Your task to perform on an android device: Open Youtube and go to the subscriptions tab Image 0: 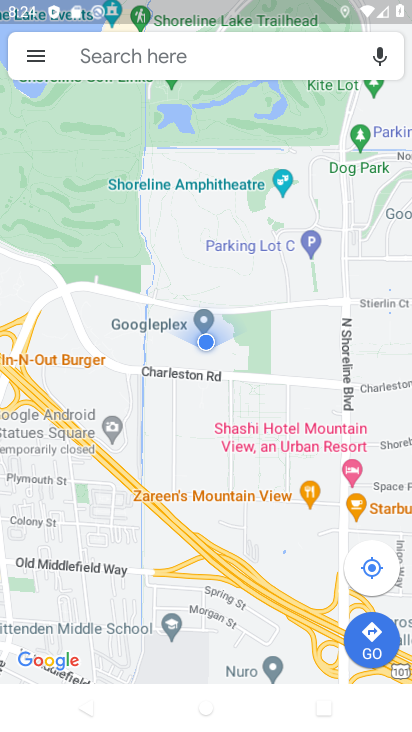
Step 0: press home button
Your task to perform on an android device: Open Youtube and go to the subscriptions tab Image 1: 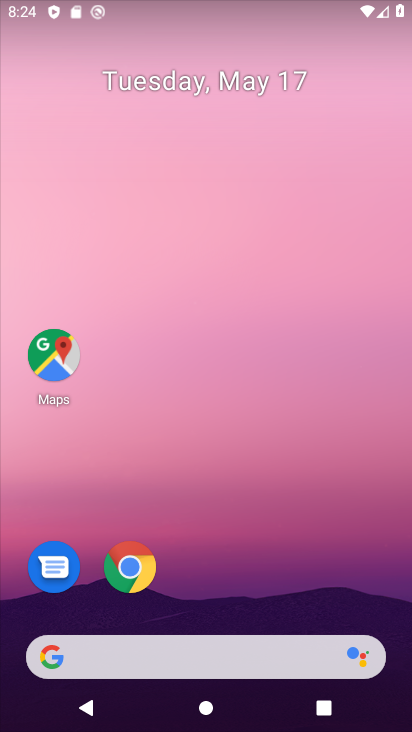
Step 1: drag from (224, 618) to (173, 177)
Your task to perform on an android device: Open Youtube and go to the subscriptions tab Image 2: 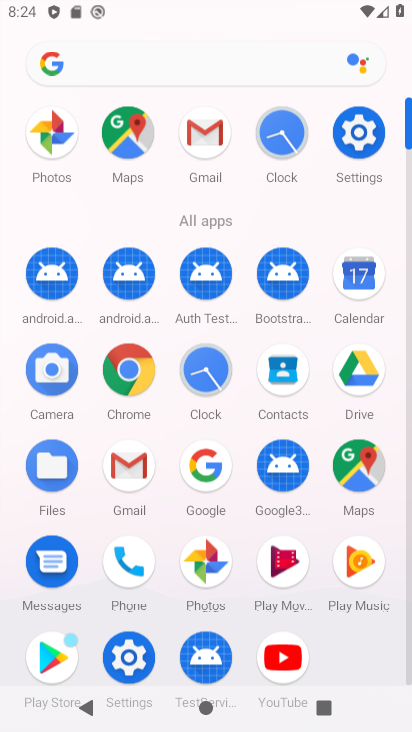
Step 2: drag from (200, 632) to (188, 123)
Your task to perform on an android device: Open Youtube and go to the subscriptions tab Image 3: 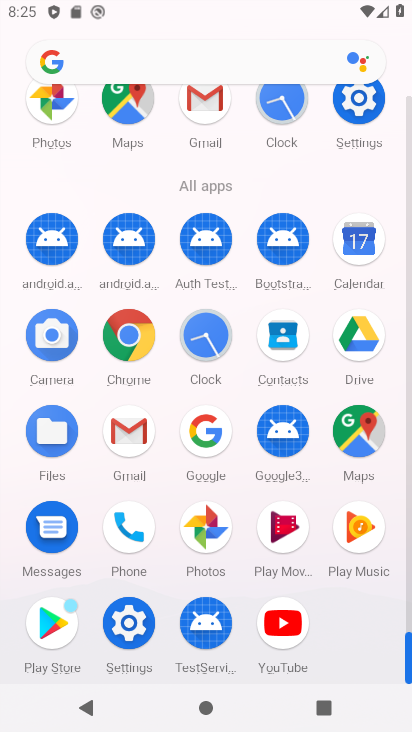
Step 3: click (281, 630)
Your task to perform on an android device: Open Youtube and go to the subscriptions tab Image 4: 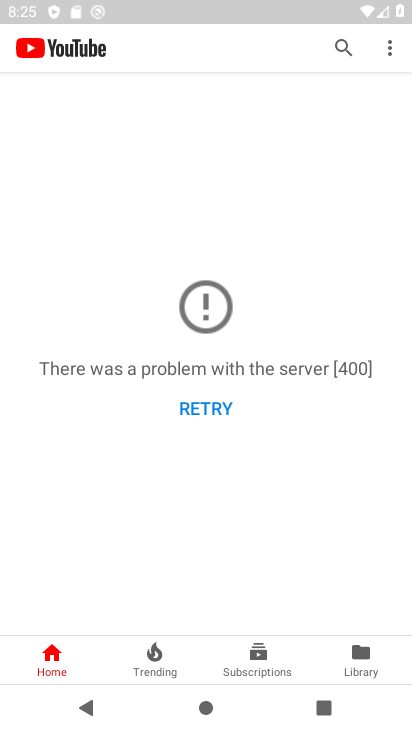
Step 4: click (258, 652)
Your task to perform on an android device: Open Youtube and go to the subscriptions tab Image 5: 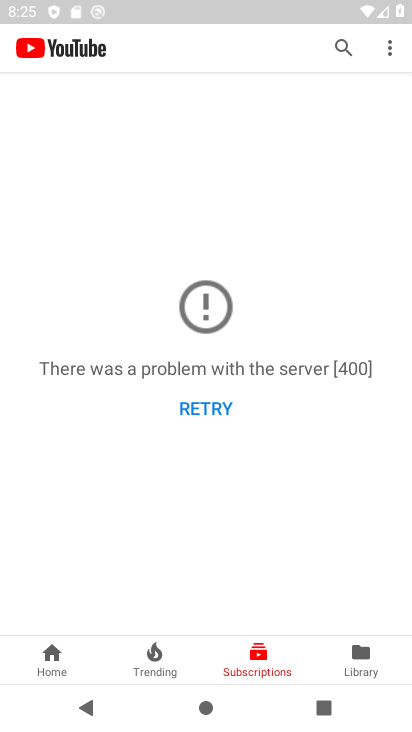
Step 5: task complete